Your task to perform on an android device: Is it going to rain today? Image 0: 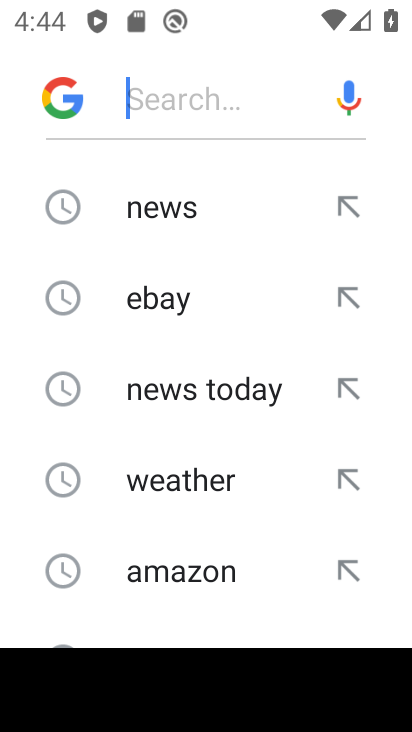
Step 0: press home button
Your task to perform on an android device: Is it going to rain today? Image 1: 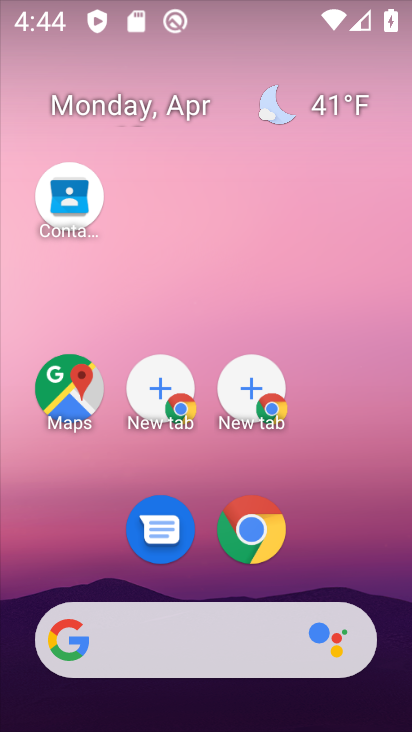
Step 1: click (314, 105)
Your task to perform on an android device: Is it going to rain today? Image 2: 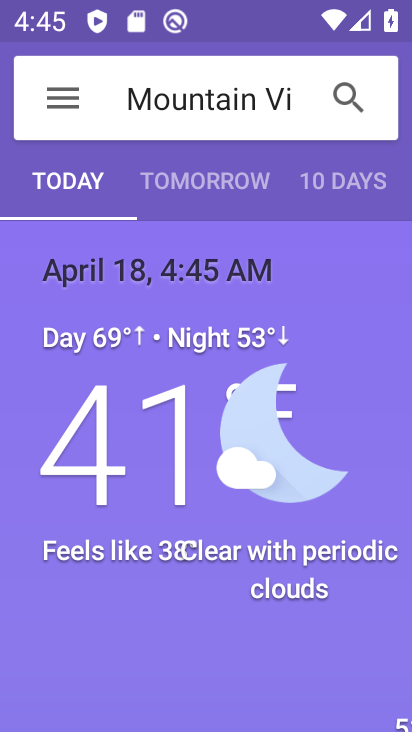
Step 2: task complete